Your task to perform on an android device: Open Youtube and go to "Your channel" Image 0: 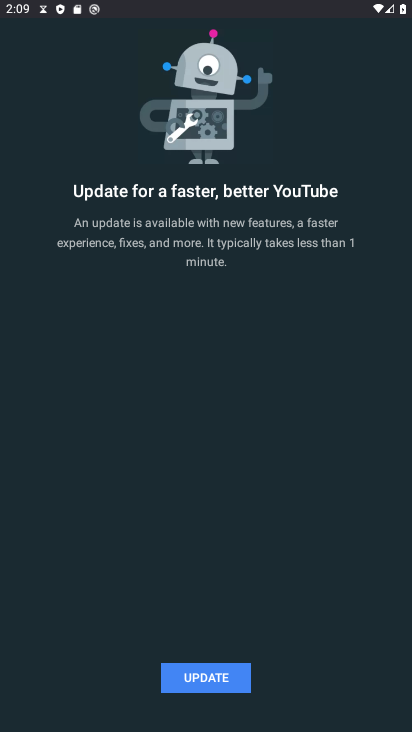
Step 0: press home button
Your task to perform on an android device: Open Youtube and go to "Your channel" Image 1: 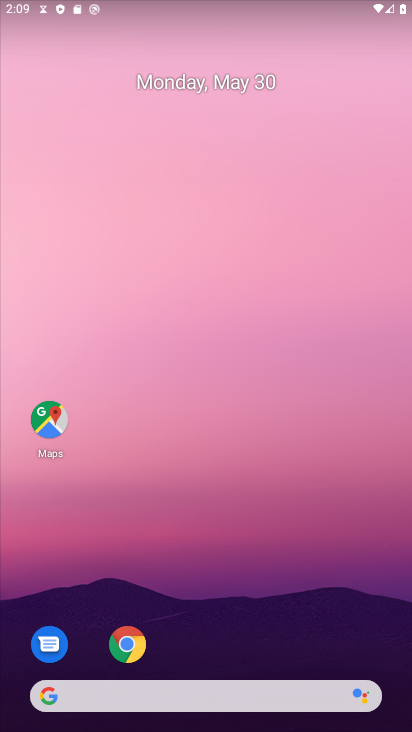
Step 1: drag from (253, 491) to (257, 166)
Your task to perform on an android device: Open Youtube and go to "Your channel" Image 2: 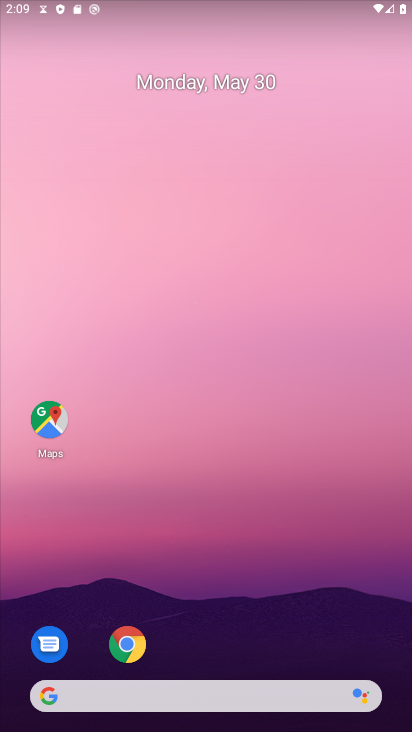
Step 2: drag from (257, 609) to (297, 5)
Your task to perform on an android device: Open Youtube and go to "Your channel" Image 3: 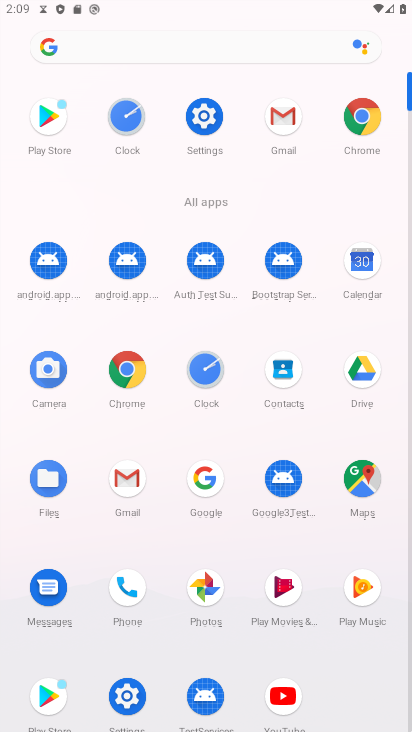
Step 3: click (289, 706)
Your task to perform on an android device: Open Youtube and go to "Your channel" Image 4: 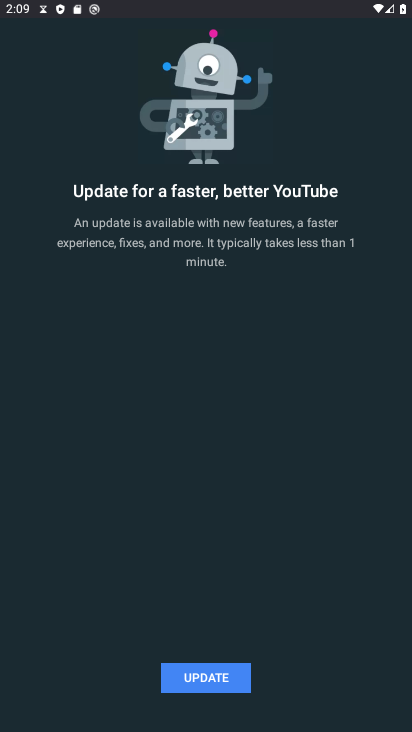
Step 4: click (219, 682)
Your task to perform on an android device: Open Youtube and go to "Your channel" Image 5: 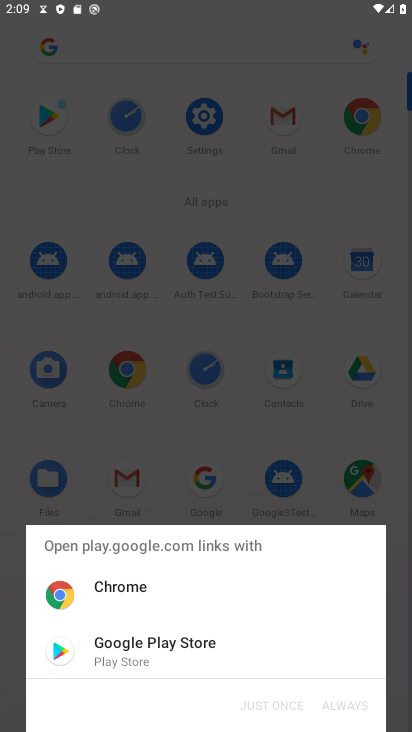
Step 5: click (99, 654)
Your task to perform on an android device: Open Youtube and go to "Your channel" Image 6: 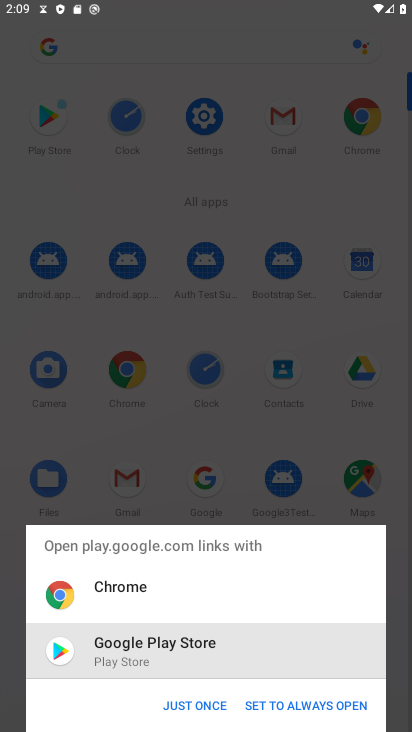
Step 6: click (206, 704)
Your task to perform on an android device: Open Youtube and go to "Your channel" Image 7: 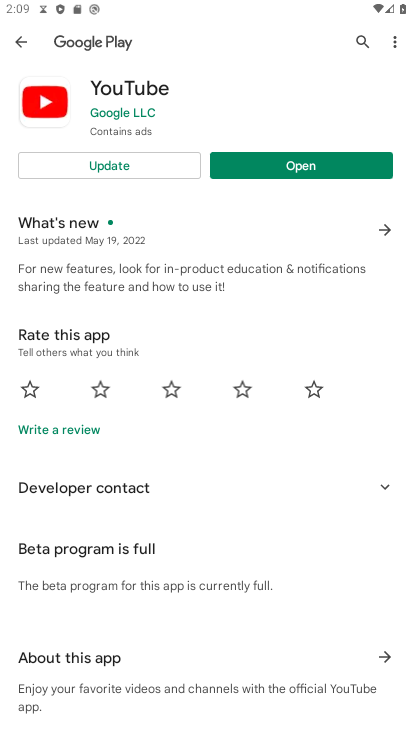
Step 7: click (180, 165)
Your task to perform on an android device: Open Youtube and go to "Your channel" Image 8: 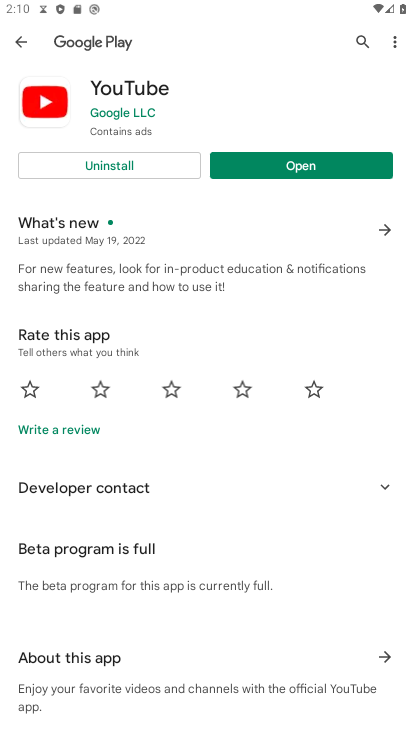
Step 8: click (337, 161)
Your task to perform on an android device: Open Youtube and go to "Your channel" Image 9: 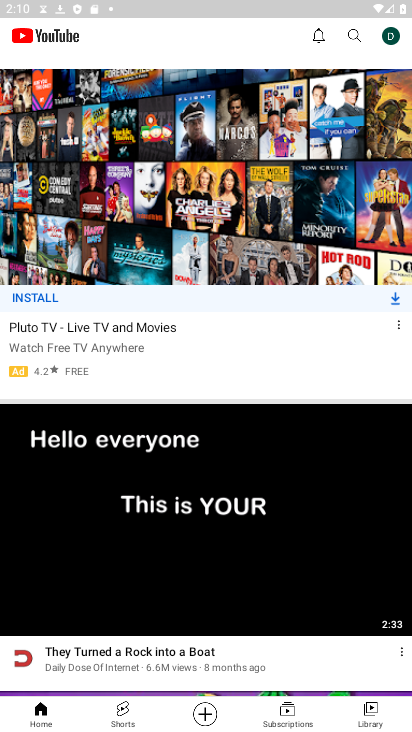
Step 9: click (392, 39)
Your task to perform on an android device: Open Youtube and go to "Your channel" Image 10: 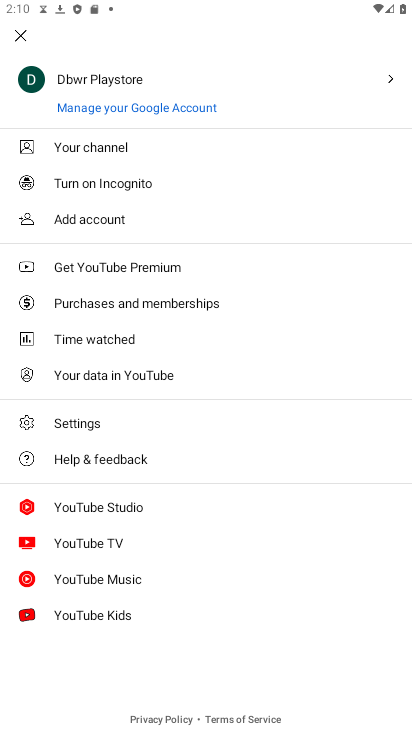
Step 10: click (92, 145)
Your task to perform on an android device: Open Youtube and go to "Your channel" Image 11: 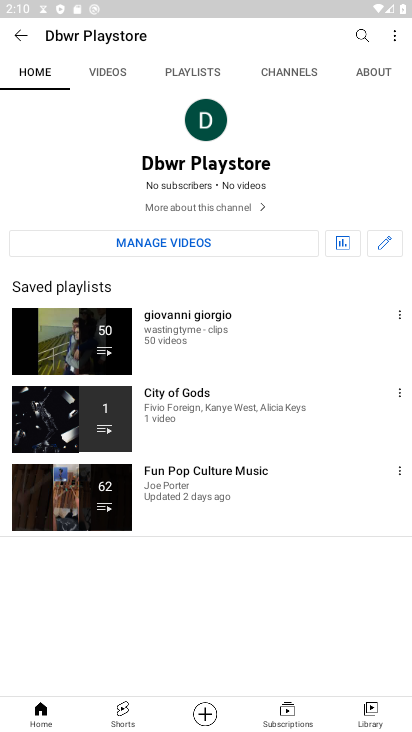
Step 11: task complete